Your task to perform on an android device: uninstall "PUBG MOBILE" Image 0: 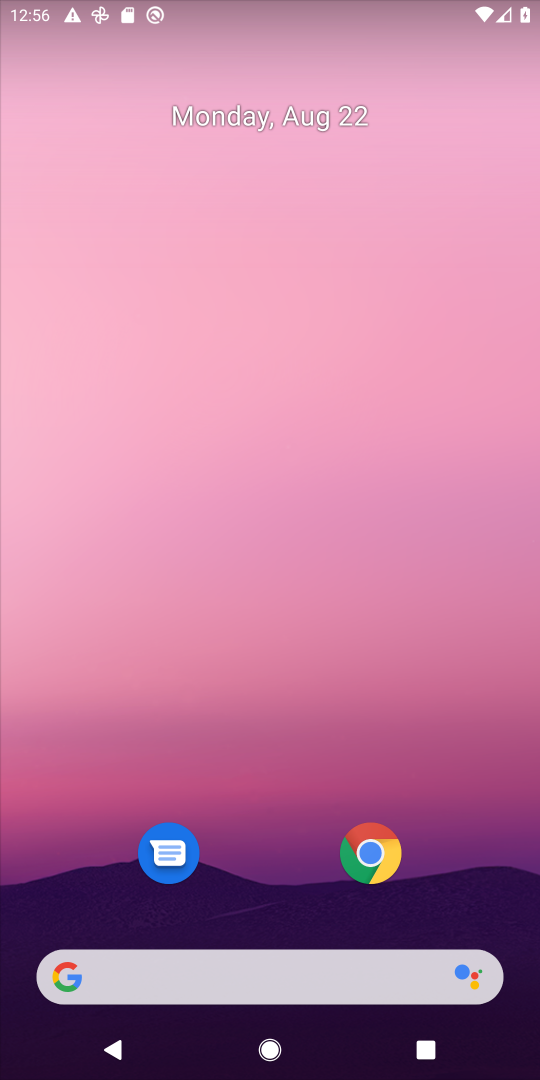
Step 0: drag from (265, 873) to (275, 547)
Your task to perform on an android device: uninstall "PUBG MOBILE" Image 1: 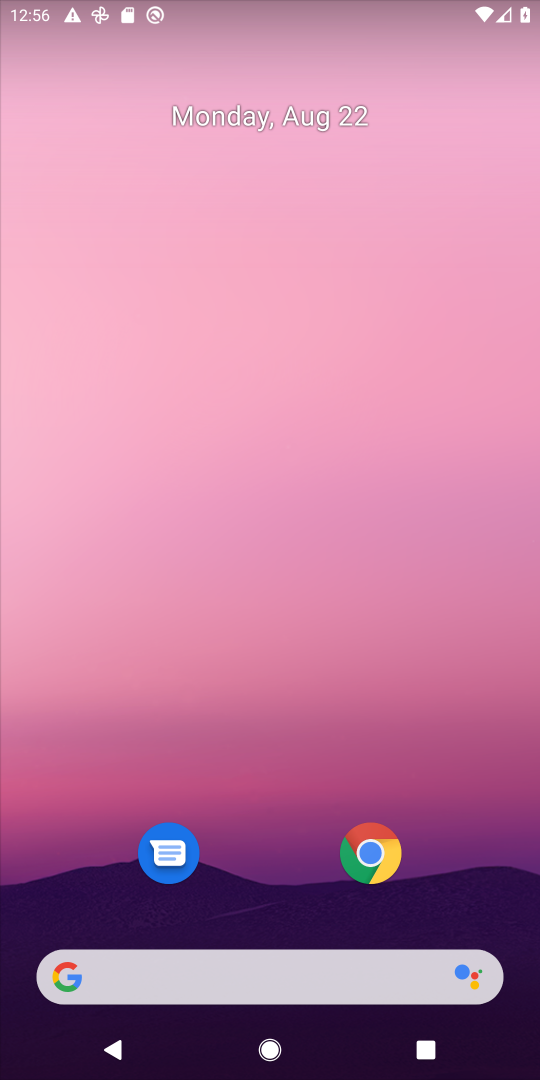
Step 1: drag from (252, 905) to (256, 326)
Your task to perform on an android device: uninstall "PUBG MOBILE" Image 2: 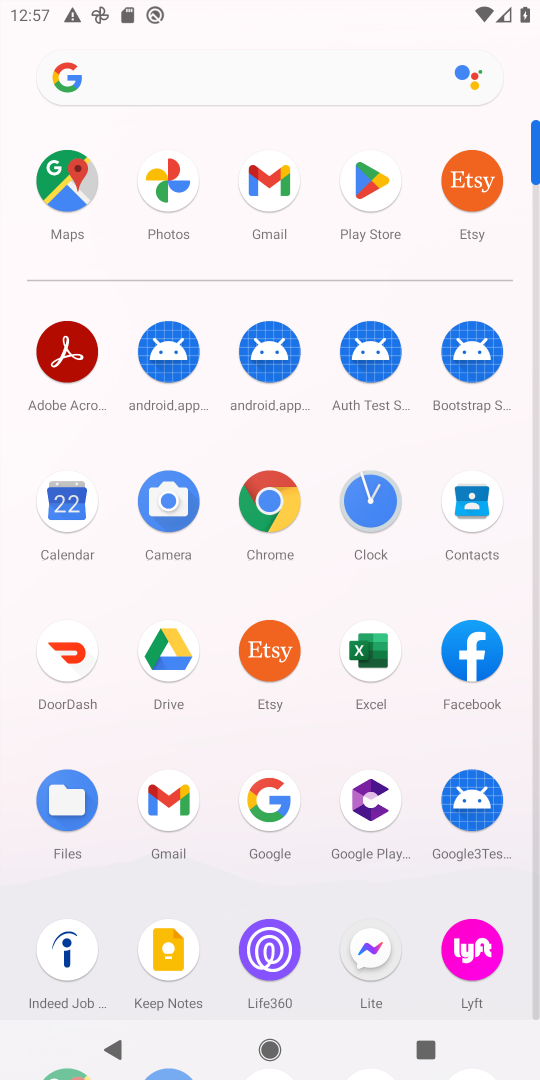
Step 2: click (376, 185)
Your task to perform on an android device: uninstall "PUBG MOBILE" Image 3: 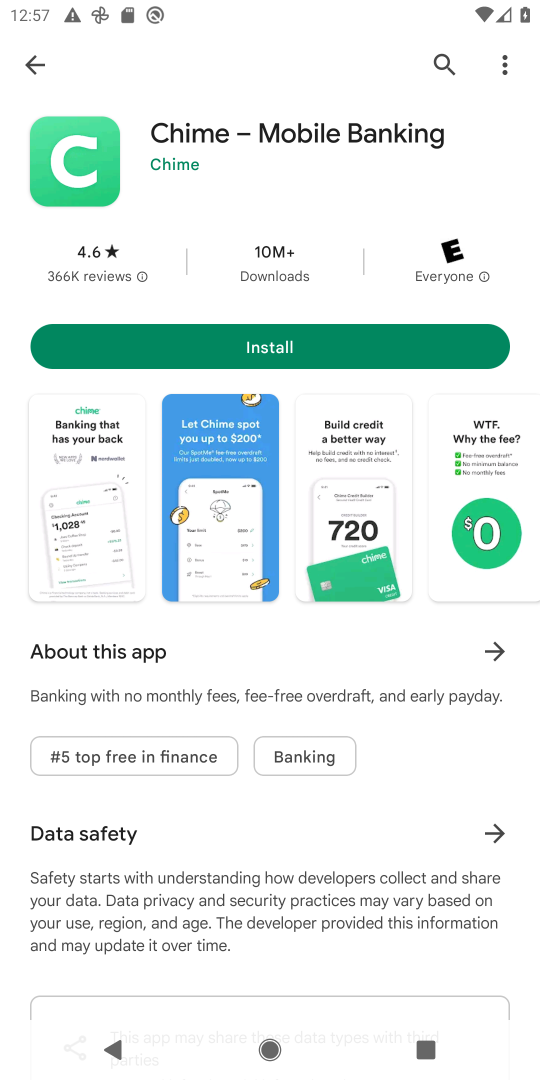
Step 3: click (55, 72)
Your task to perform on an android device: uninstall "PUBG MOBILE" Image 4: 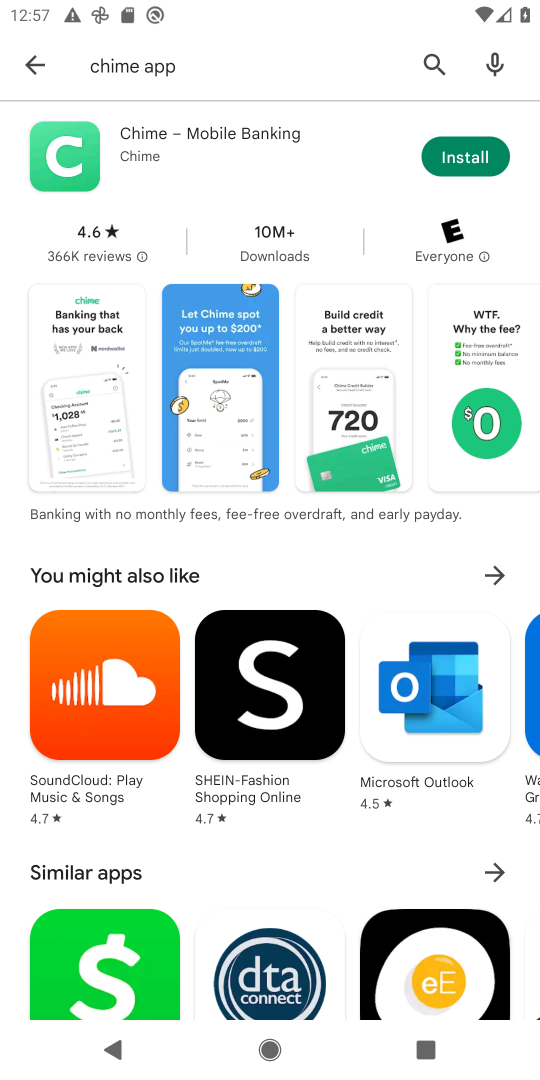
Step 4: click (27, 53)
Your task to perform on an android device: uninstall "PUBG MOBILE" Image 5: 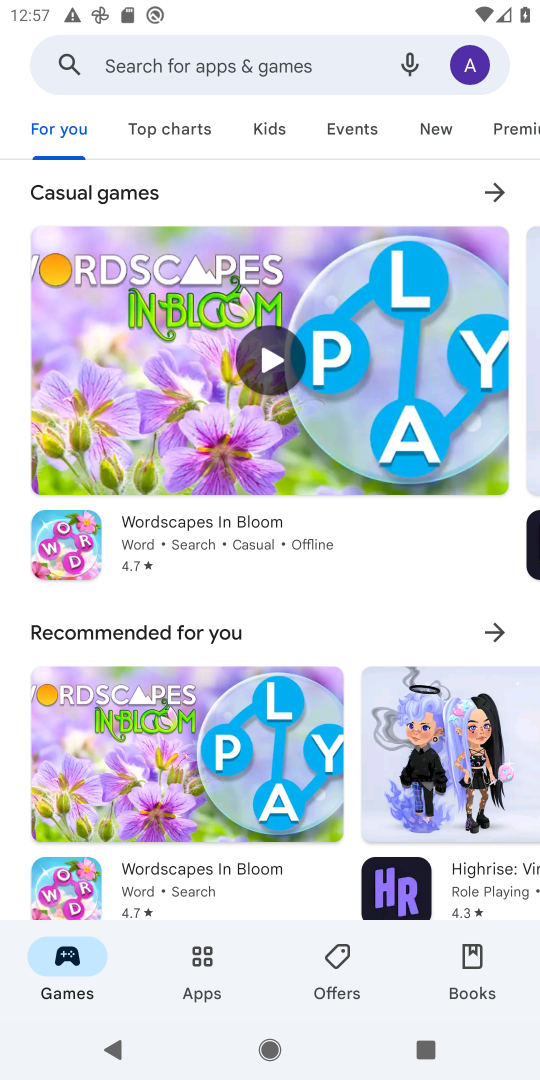
Step 5: click (239, 47)
Your task to perform on an android device: uninstall "PUBG MOBILE" Image 6: 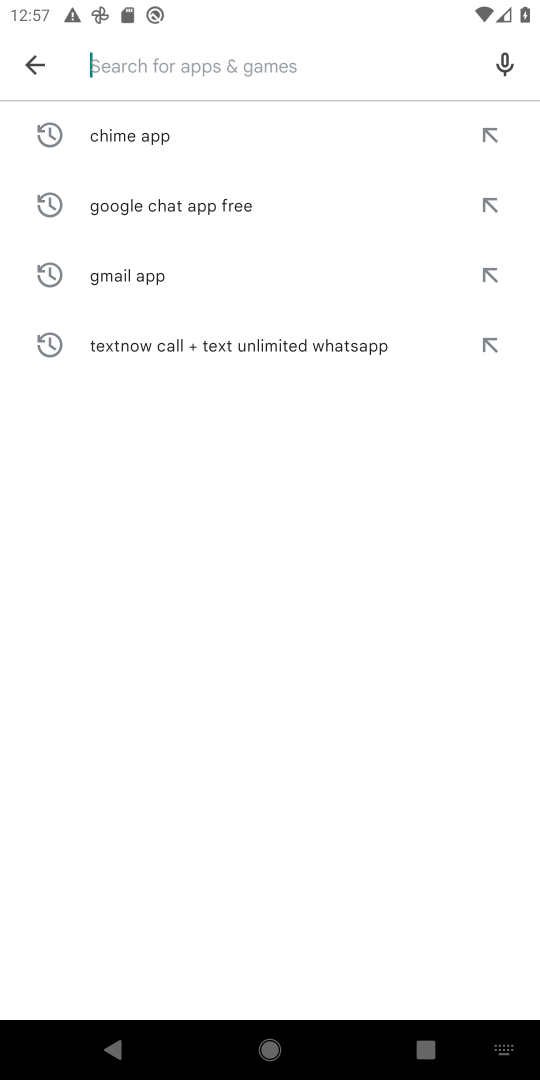
Step 6: type "PUBG MOBILE "
Your task to perform on an android device: uninstall "PUBG MOBILE" Image 7: 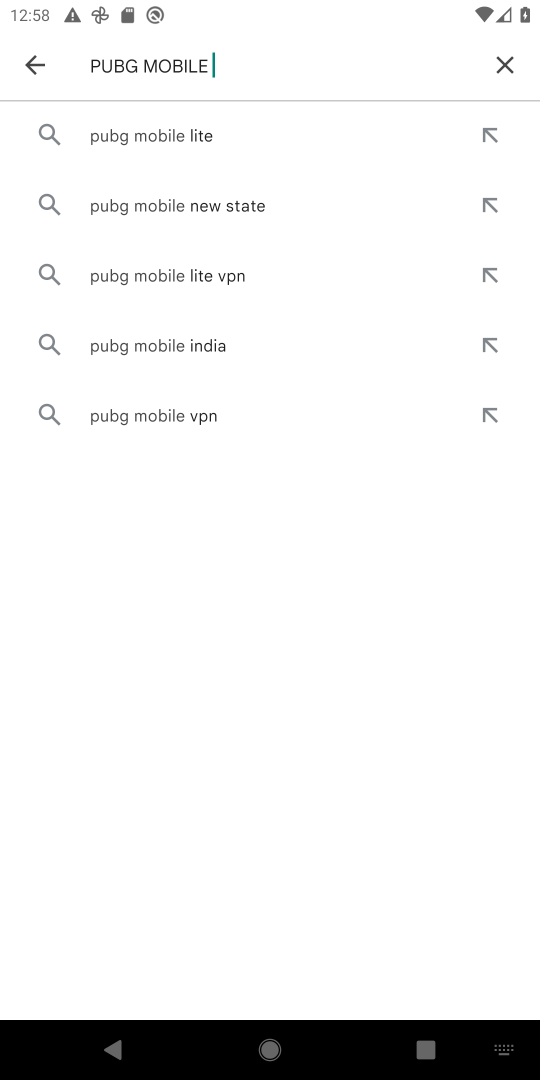
Step 7: click (179, 128)
Your task to perform on an android device: uninstall "PUBG MOBILE" Image 8: 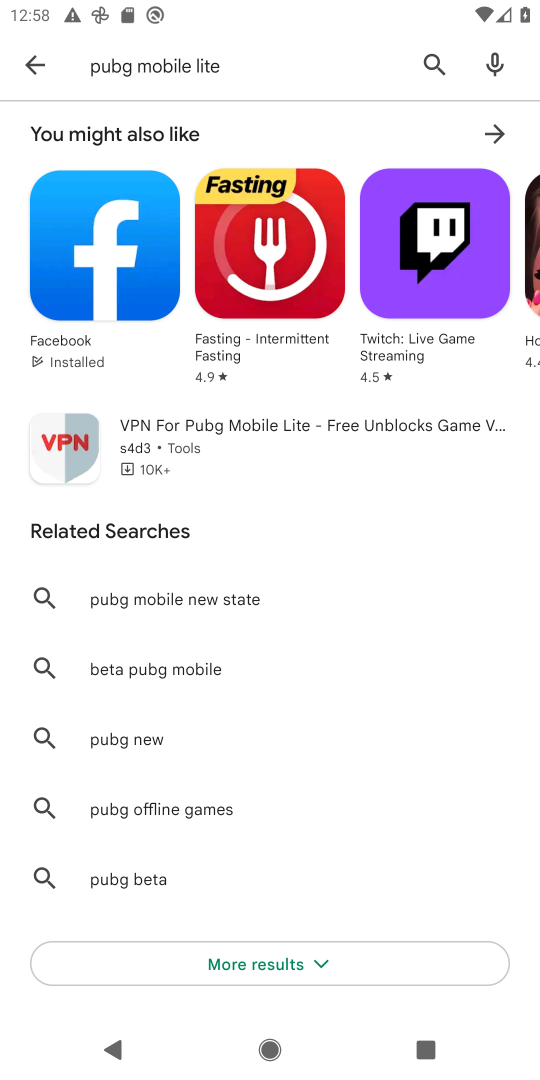
Step 8: click (202, 632)
Your task to perform on an android device: uninstall "PUBG MOBILE" Image 9: 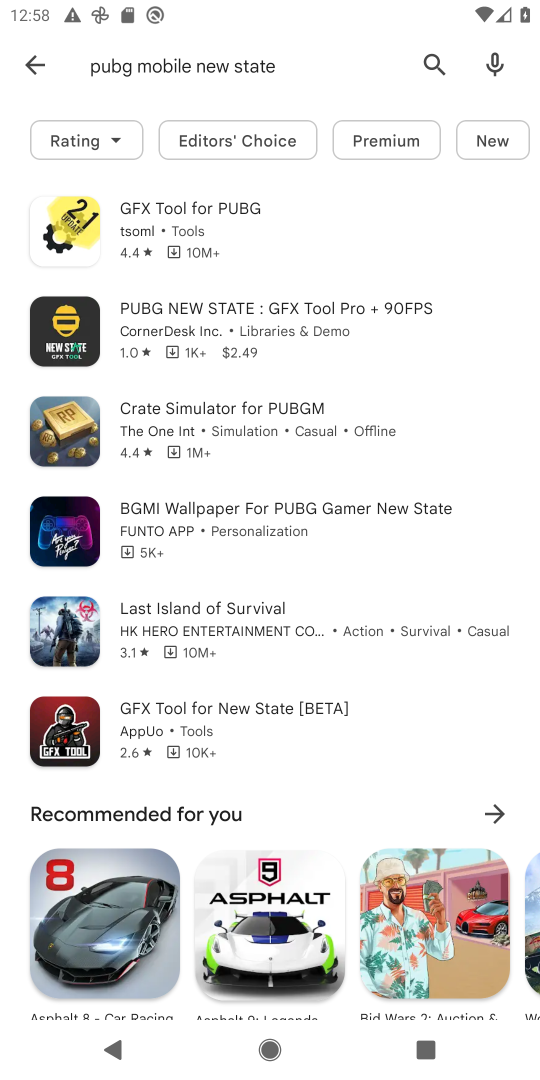
Step 9: task complete